Your task to perform on an android device: check google app version Image 0: 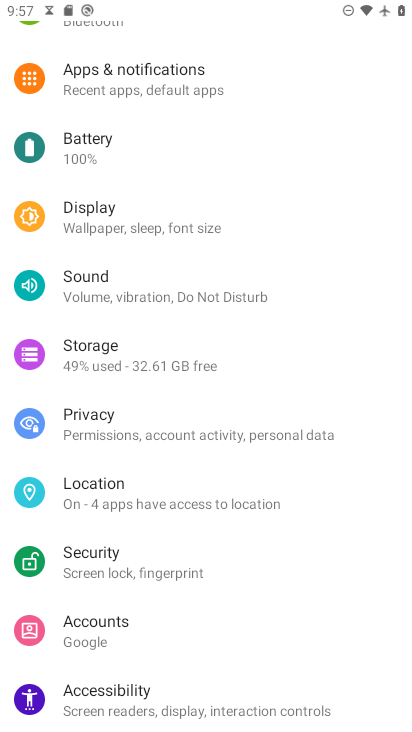
Step 0: press home button
Your task to perform on an android device: check google app version Image 1: 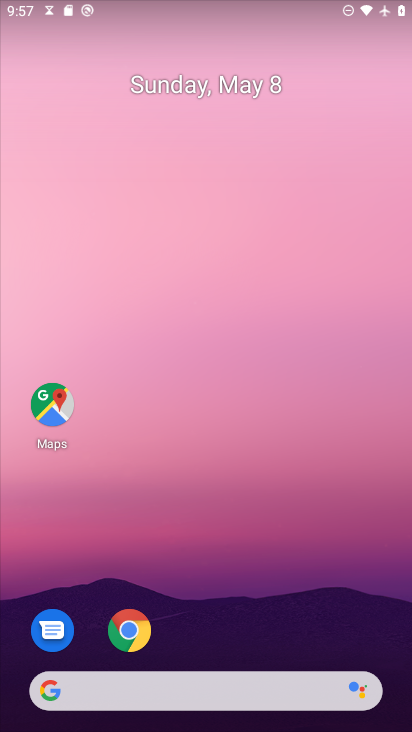
Step 1: drag from (205, 693) to (323, 217)
Your task to perform on an android device: check google app version Image 2: 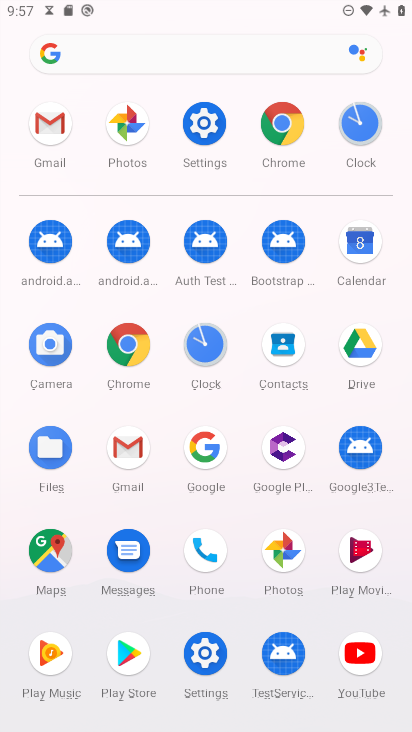
Step 2: drag from (204, 439) to (250, 386)
Your task to perform on an android device: check google app version Image 3: 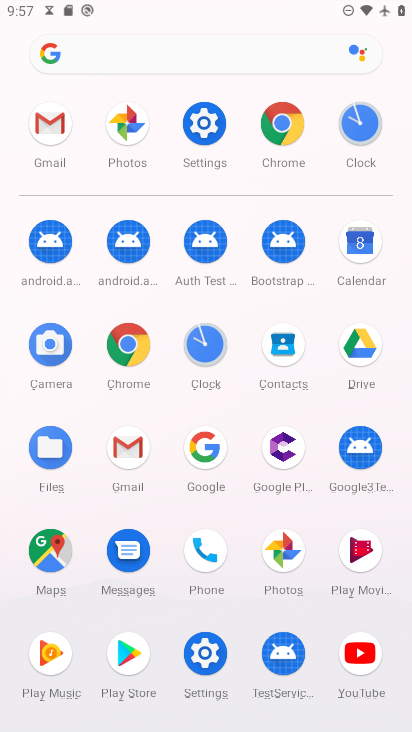
Step 3: click (314, 299)
Your task to perform on an android device: check google app version Image 4: 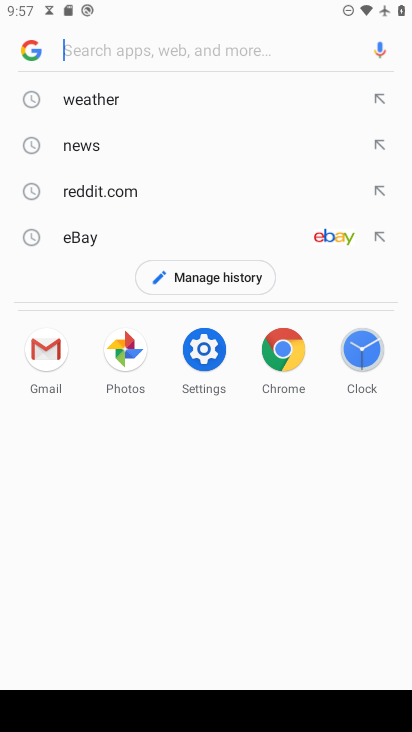
Step 4: press home button
Your task to perform on an android device: check google app version Image 5: 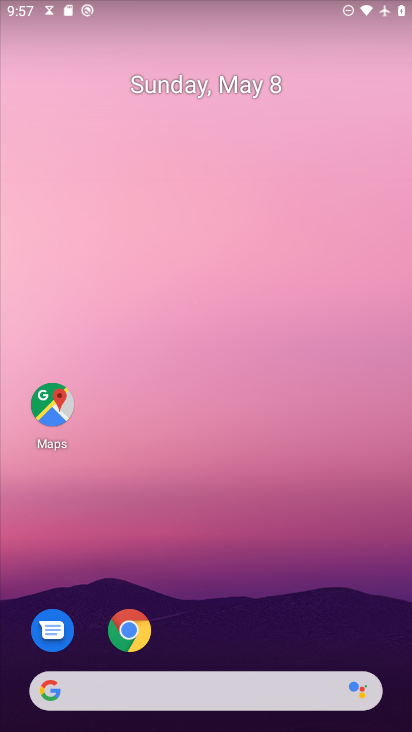
Step 5: drag from (194, 685) to (335, 177)
Your task to perform on an android device: check google app version Image 6: 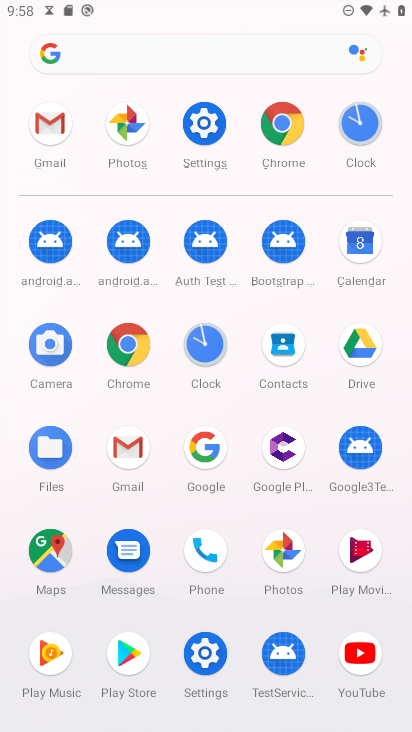
Step 6: drag from (202, 445) to (250, 399)
Your task to perform on an android device: check google app version Image 7: 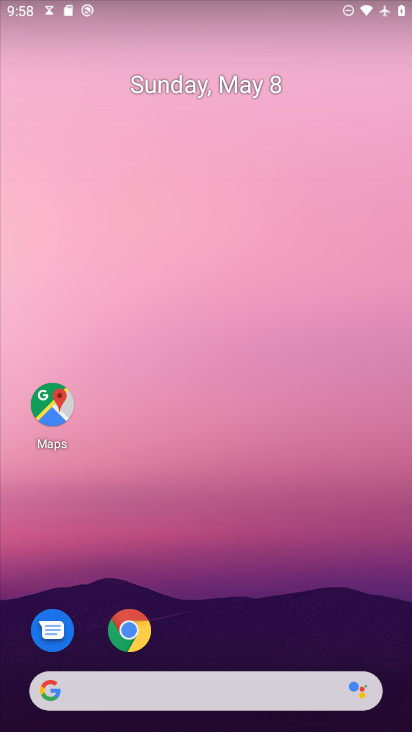
Step 7: drag from (184, 700) to (292, 154)
Your task to perform on an android device: check google app version Image 8: 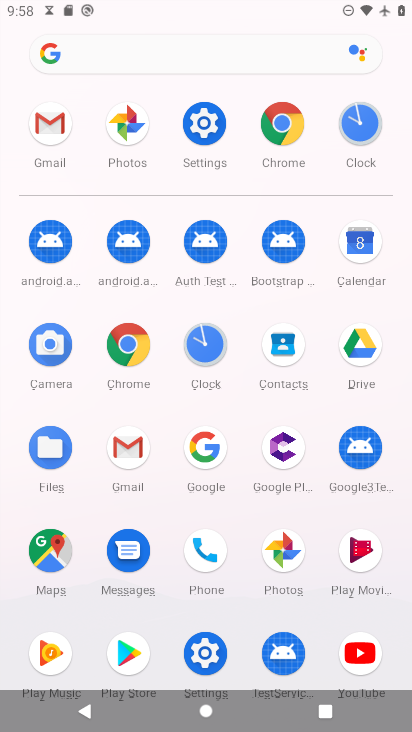
Step 8: click (203, 448)
Your task to perform on an android device: check google app version Image 9: 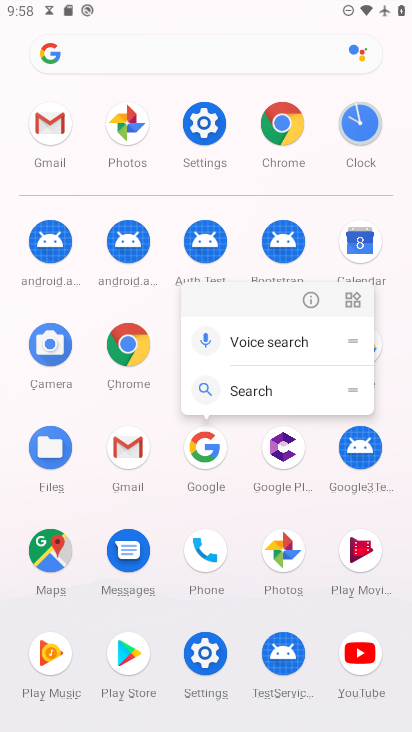
Step 9: click (310, 297)
Your task to perform on an android device: check google app version Image 10: 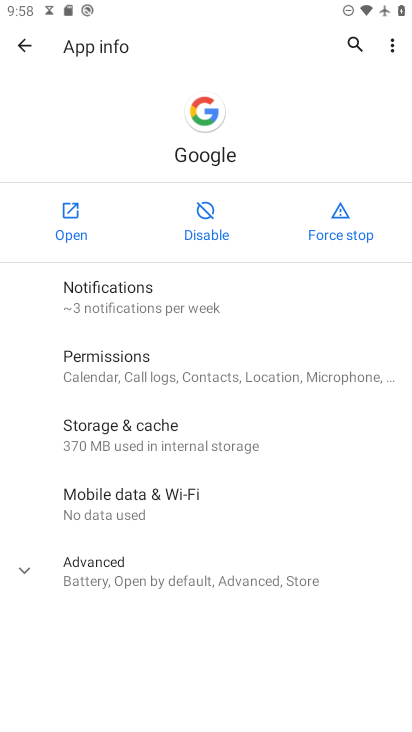
Step 10: click (117, 580)
Your task to perform on an android device: check google app version Image 11: 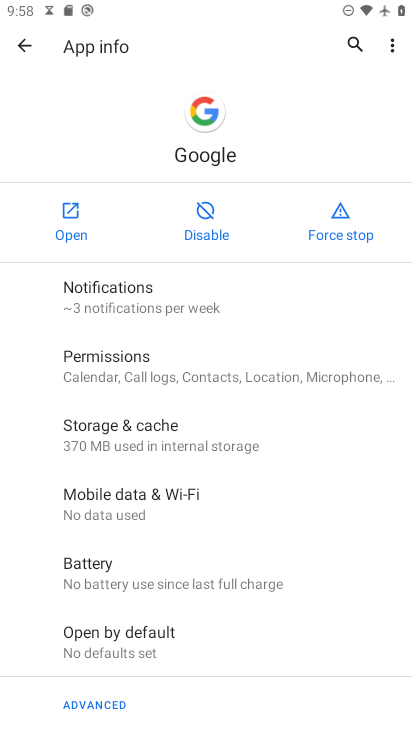
Step 11: drag from (155, 615) to (401, 164)
Your task to perform on an android device: check google app version Image 12: 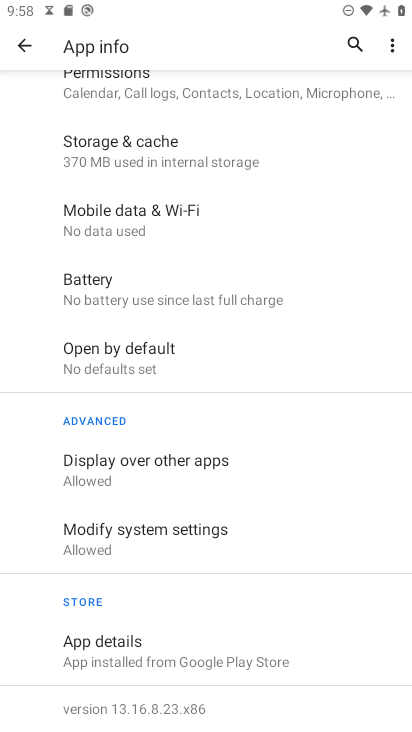
Step 12: click (128, 718)
Your task to perform on an android device: check google app version Image 13: 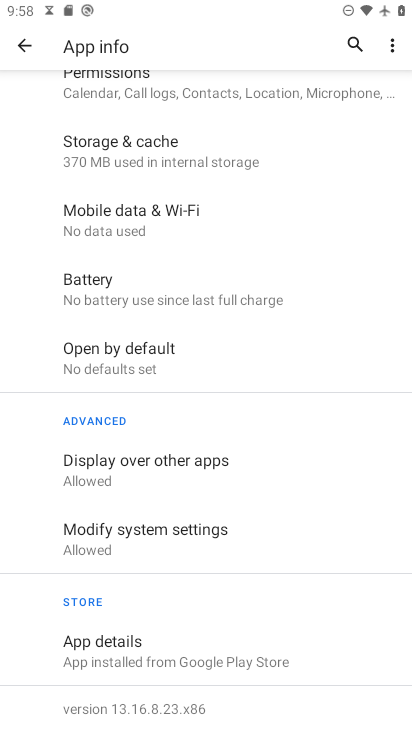
Step 13: task complete